Your task to perform on an android device: refresh tabs in the chrome app Image 0: 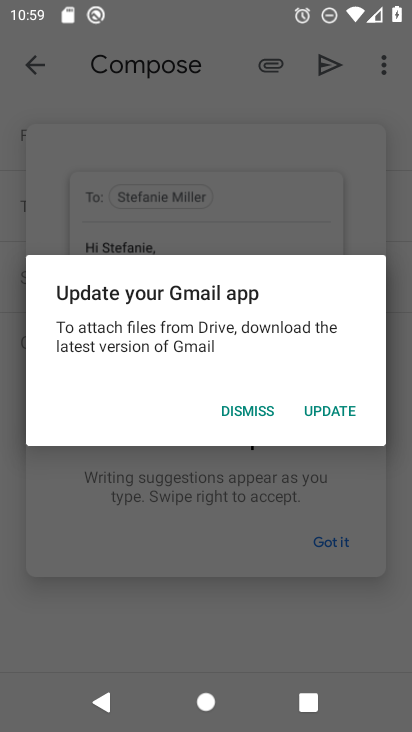
Step 0: press back button
Your task to perform on an android device: refresh tabs in the chrome app Image 1: 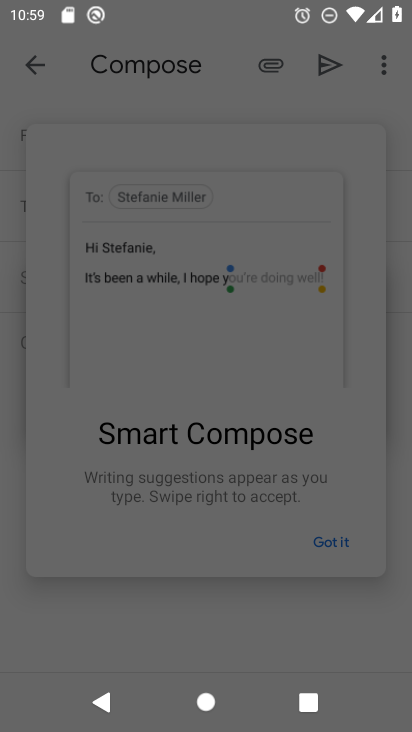
Step 1: press home button
Your task to perform on an android device: refresh tabs in the chrome app Image 2: 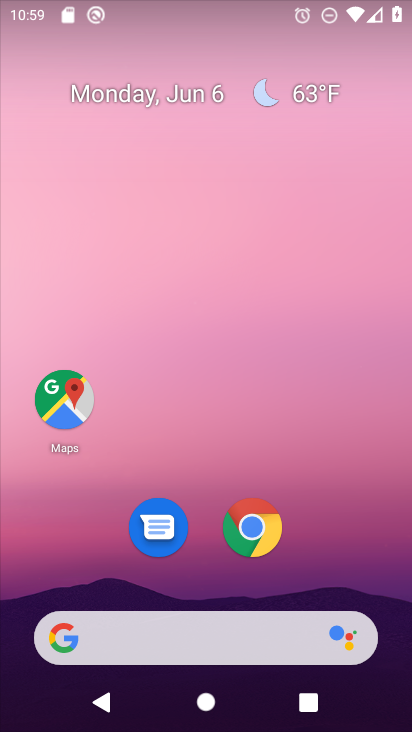
Step 2: drag from (355, 543) to (372, 116)
Your task to perform on an android device: refresh tabs in the chrome app Image 3: 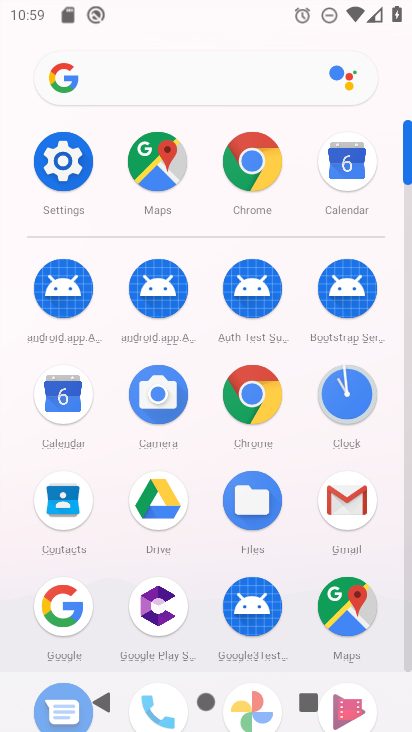
Step 3: click (272, 400)
Your task to perform on an android device: refresh tabs in the chrome app Image 4: 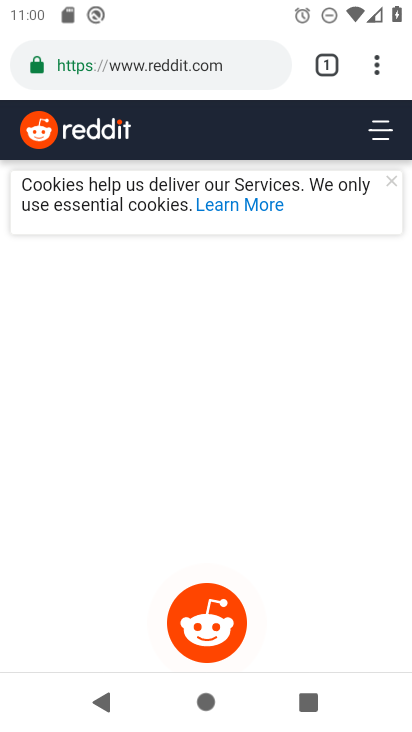
Step 4: click (380, 68)
Your task to perform on an android device: refresh tabs in the chrome app Image 5: 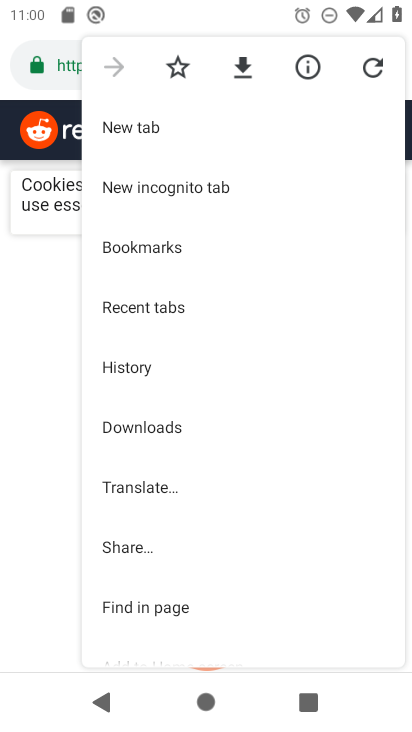
Step 5: click (380, 68)
Your task to perform on an android device: refresh tabs in the chrome app Image 6: 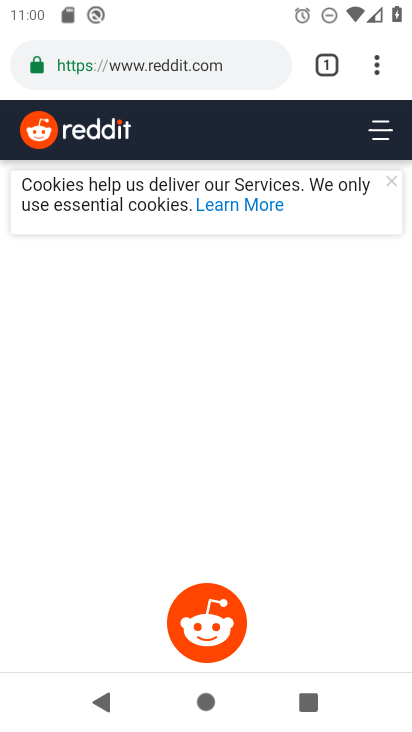
Step 6: task complete